Your task to perform on an android device: Go to internet settings Image 0: 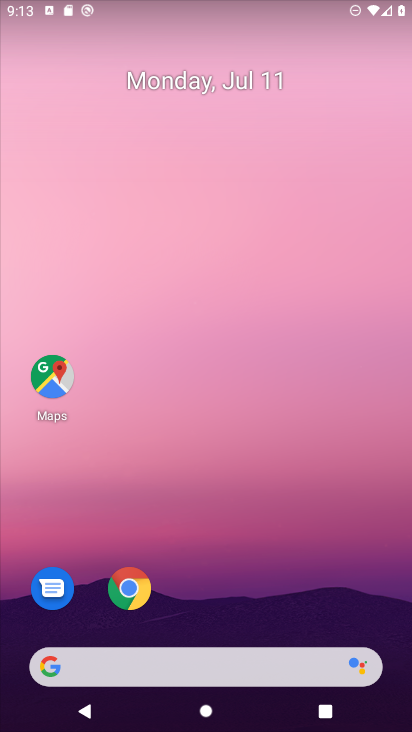
Step 0: drag from (385, 633) to (255, 95)
Your task to perform on an android device: Go to internet settings Image 1: 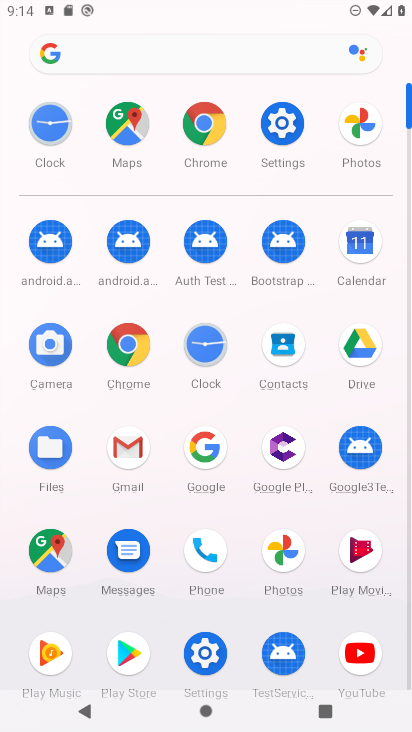
Step 1: click (297, 124)
Your task to perform on an android device: Go to internet settings Image 2: 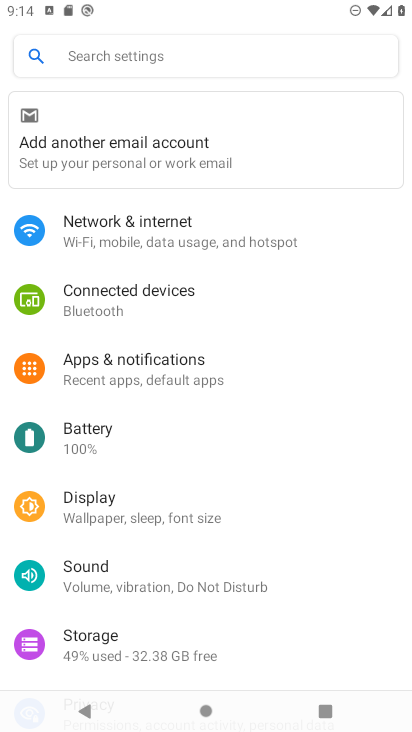
Step 2: click (212, 245)
Your task to perform on an android device: Go to internet settings Image 3: 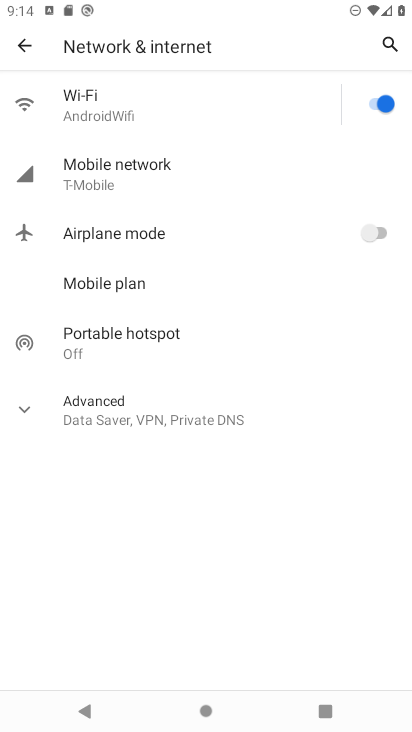
Step 3: task complete